Your task to perform on an android device: empty trash in the gmail app Image 0: 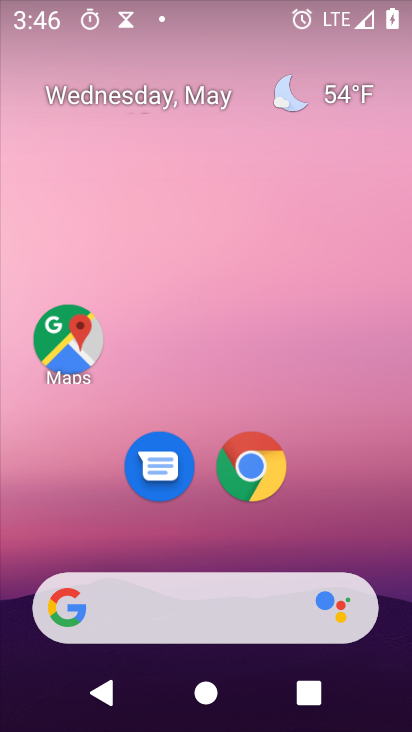
Step 0: drag from (380, 528) to (339, 61)
Your task to perform on an android device: empty trash in the gmail app Image 1: 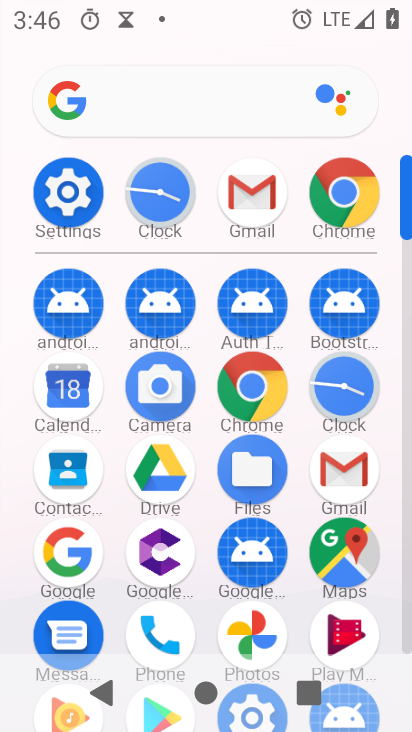
Step 1: click (264, 202)
Your task to perform on an android device: empty trash in the gmail app Image 2: 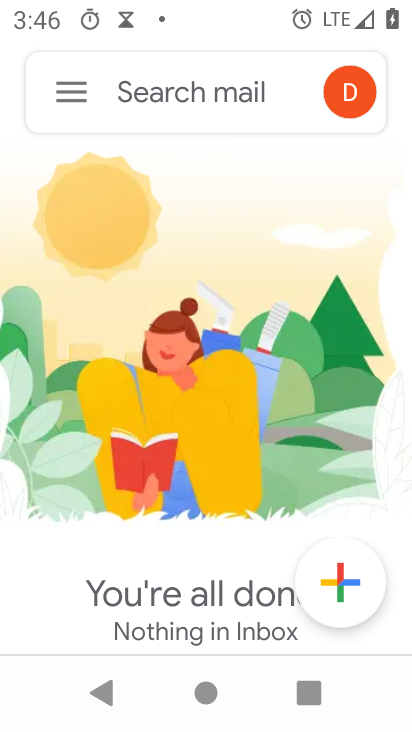
Step 2: click (75, 98)
Your task to perform on an android device: empty trash in the gmail app Image 3: 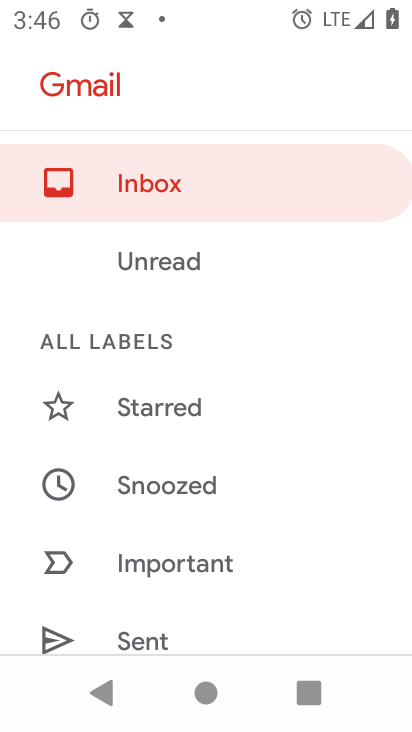
Step 3: drag from (201, 603) to (226, 141)
Your task to perform on an android device: empty trash in the gmail app Image 4: 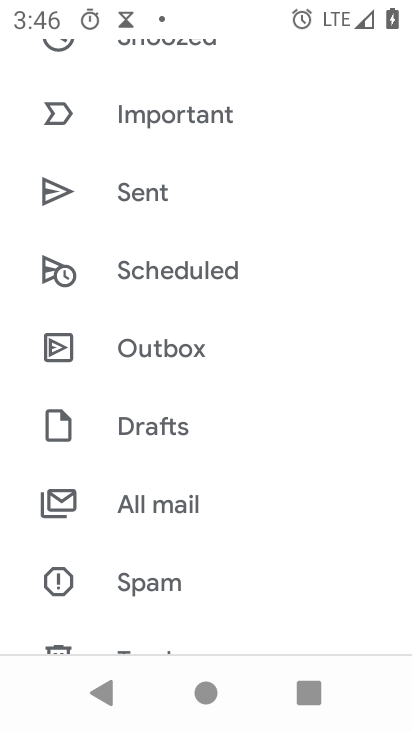
Step 4: drag from (256, 497) to (242, 111)
Your task to perform on an android device: empty trash in the gmail app Image 5: 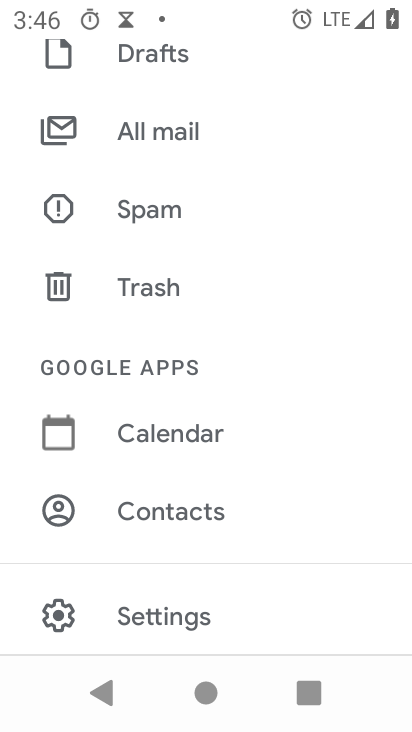
Step 5: click (249, 285)
Your task to perform on an android device: empty trash in the gmail app Image 6: 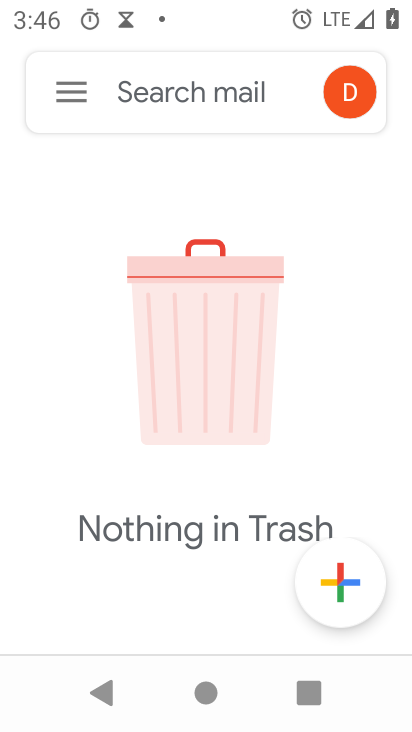
Step 6: task complete